Your task to perform on an android device: Open accessibility settings Image 0: 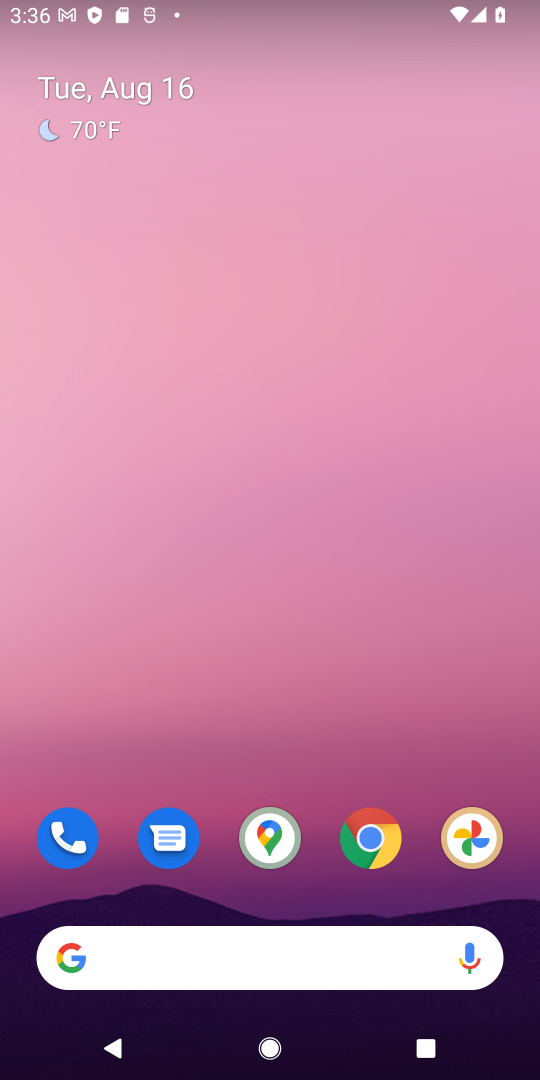
Step 0: drag from (294, 939) to (231, 20)
Your task to perform on an android device: Open accessibility settings Image 1: 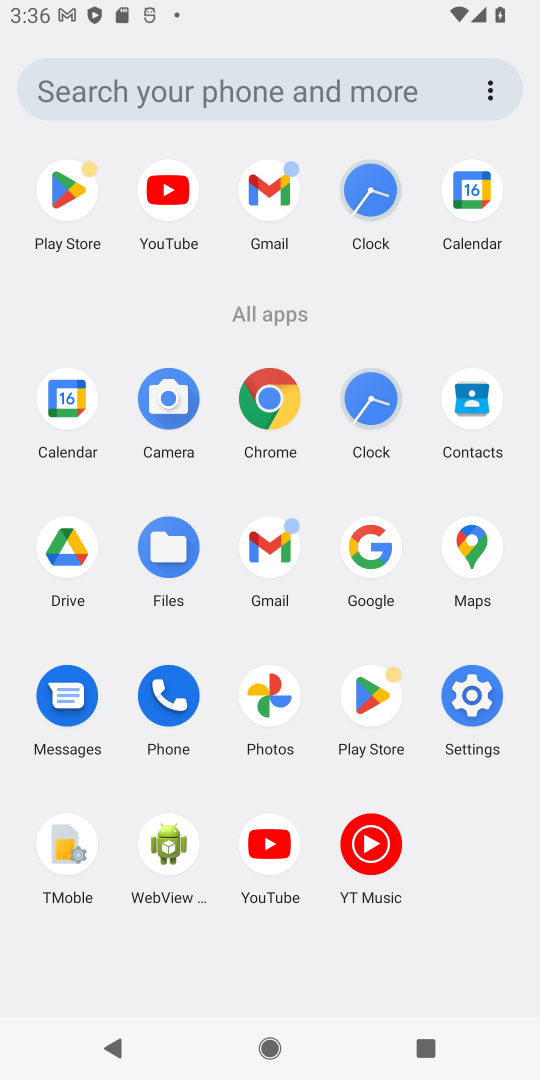
Step 1: click (454, 709)
Your task to perform on an android device: Open accessibility settings Image 2: 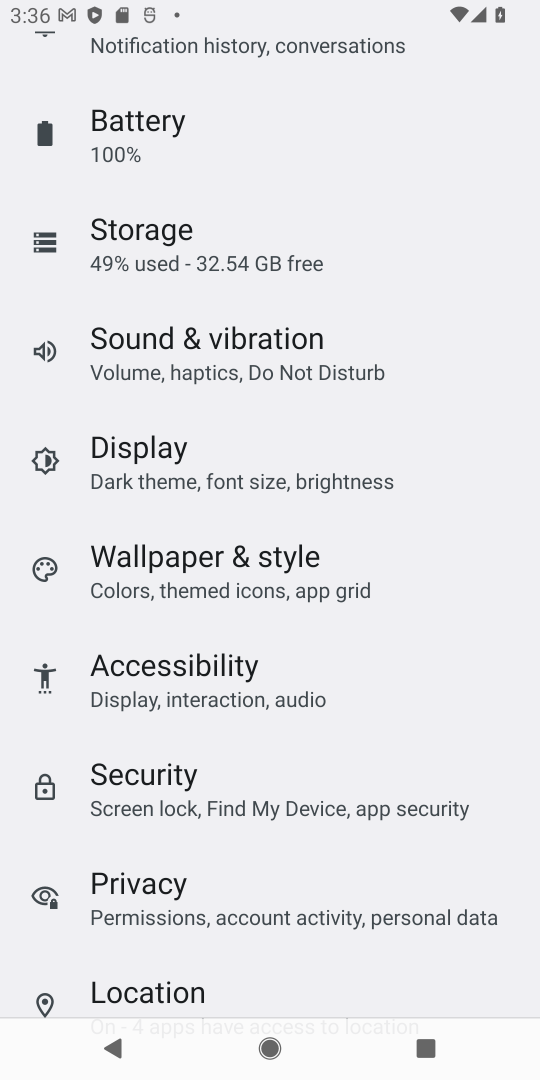
Step 2: click (218, 673)
Your task to perform on an android device: Open accessibility settings Image 3: 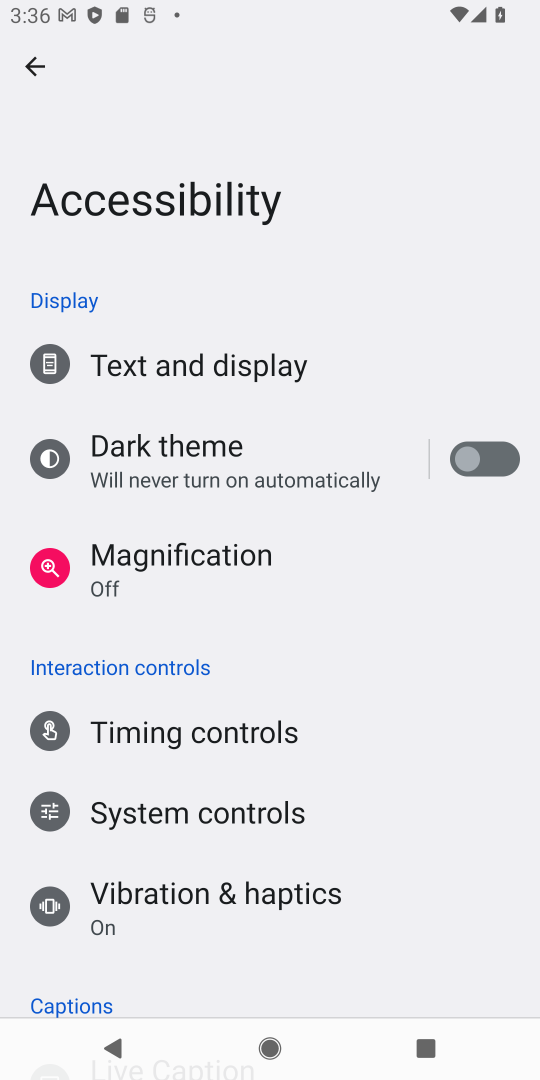
Step 3: task complete